Your task to perform on an android device: Go to display settings Image 0: 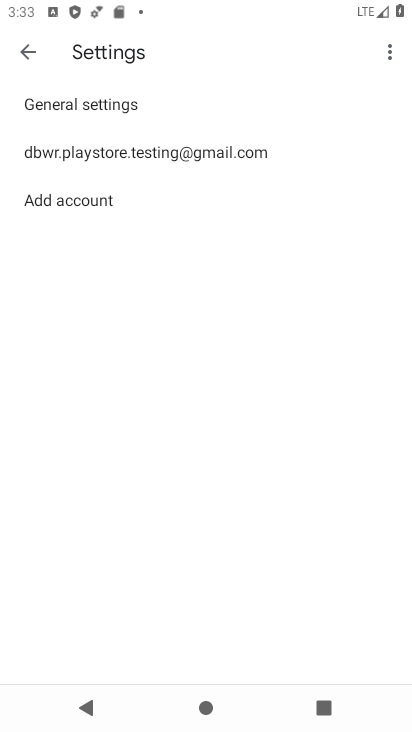
Step 0: press home button
Your task to perform on an android device: Go to display settings Image 1: 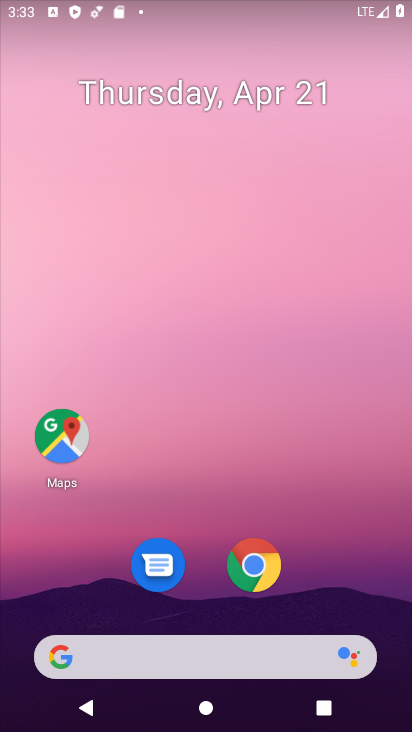
Step 1: drag from (345, 533) to (336, 79)
Your task to perform on an android device: Go to display settings Image 2: 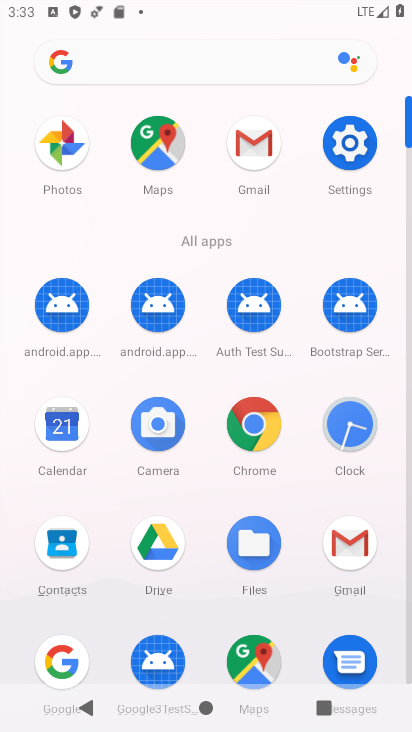
Step 2: click (347, 142)
Your task to perform on an android device: Go to display settings Image 3: 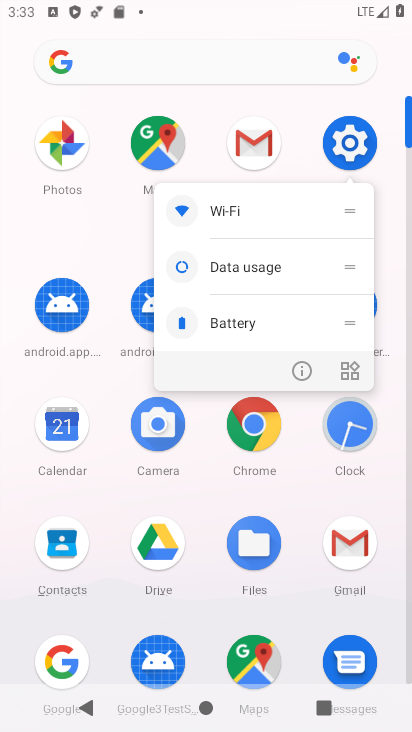
Step 3: click (348, 145)
Your task to perform on an android device: Go to display settings Image 4: 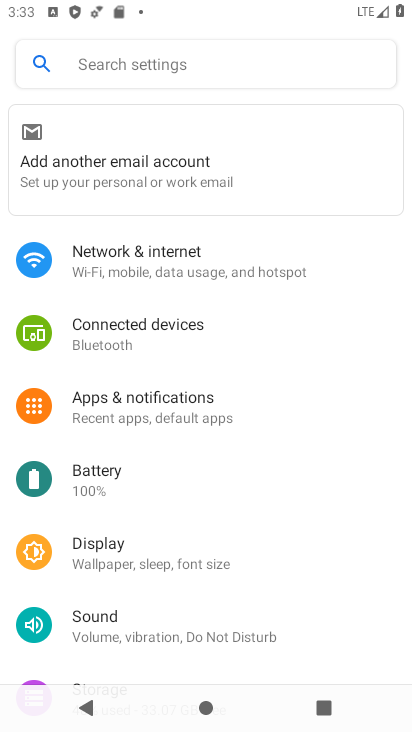
Step 4: click (157, 547)
Your task to perform on an android device: Go to display settings Image 5: 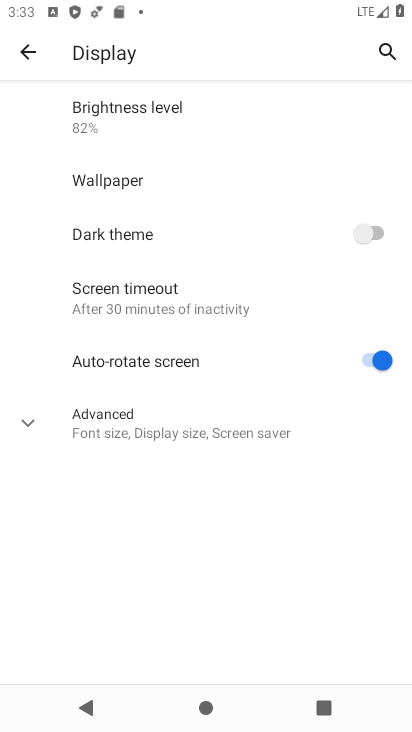
Step 5: task complete